Your task to perform on an android device: find which apps use the phone's location Image 0: 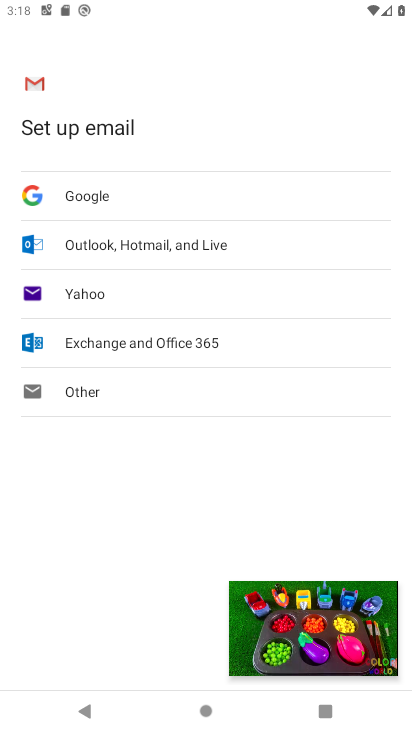
Step 0: click (330, 626)
Your task to perform on an android device: find which apps use the phone's location Image 1: 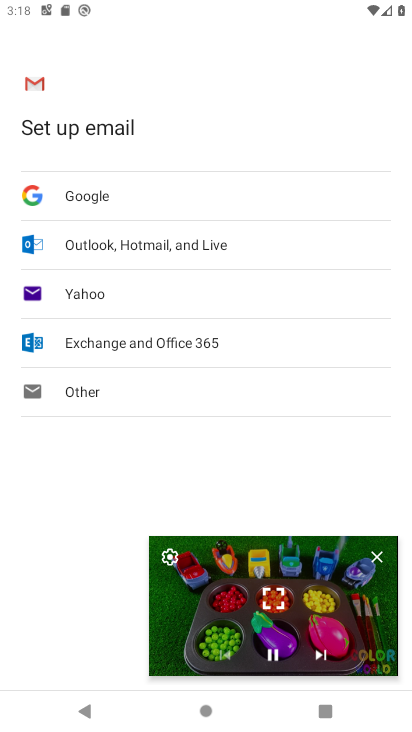
Step 1: click (367, 561)
Your task to perform on an android device: find which apps use the phone's location Image 2: 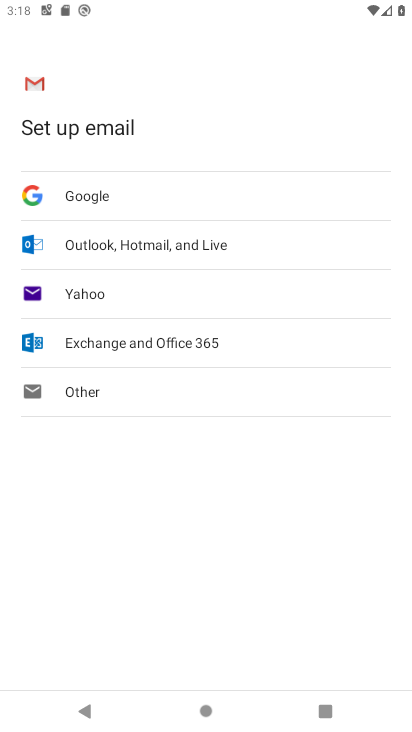
Step 2: drag from (208, 645) to (301, 255)
Your task to perform on an android device: find which apps use the phone's location Image 3: 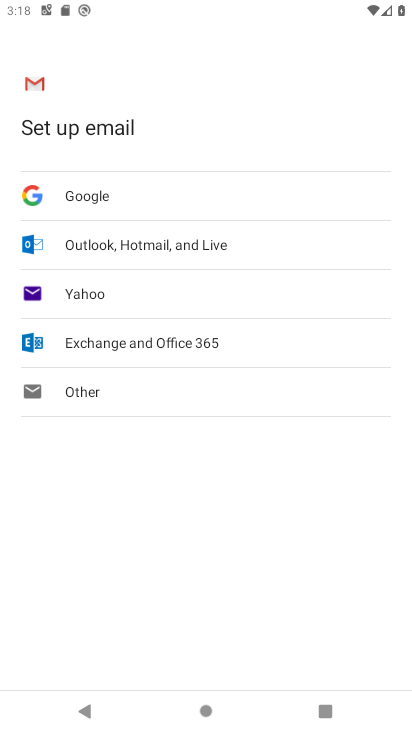
Step 3: drag from (150, 499) to (278, 147)
Your task to perform on an android device: find which apps use the phone's location Image 4: 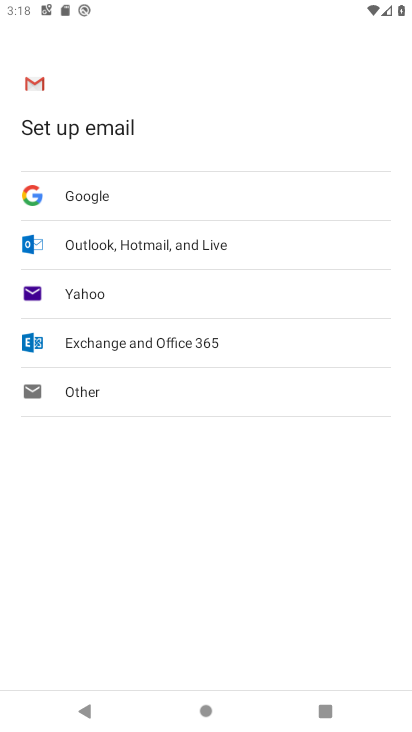
Step 4: drag from (274, 536) to (297, 334)
Your task to perform on an android device: find which apps use the phone's location Image 5: 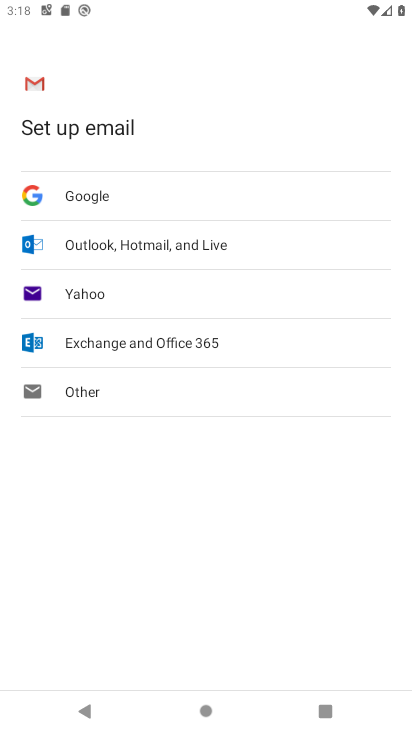
Step 5: click (282, 74)
Your task to perform on an android device: find which apps use the phone's location Image 6: 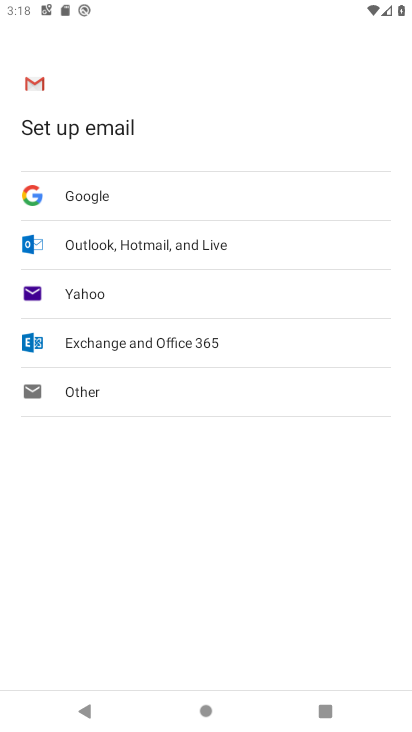
Step 6: drag from (229, 533) to (386, 78)
Your task to perform on an android device: find which apps use the phone's location Image 7: 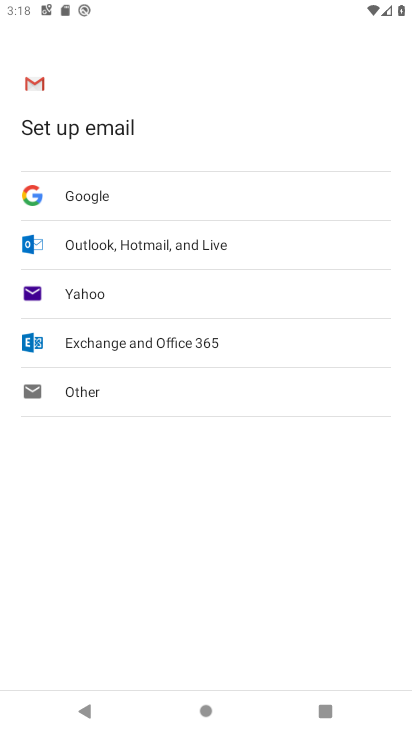
Step 7: press home button
Your task to perform on an android device: find which apps use the phone's location Image 8: 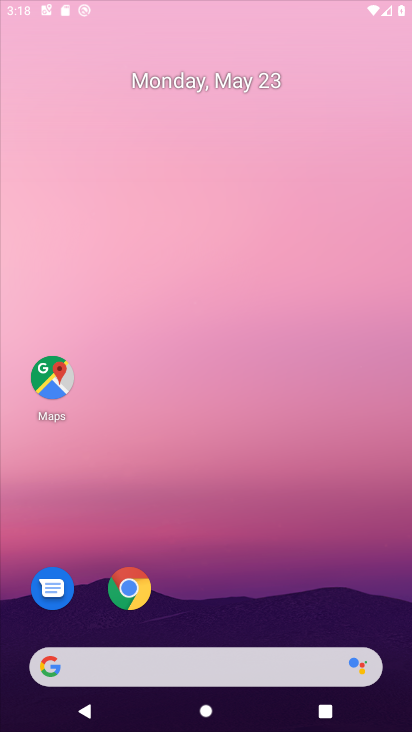
Step 8: drag from (271, 534) to (360, 14)
Your task to perform on an android device: find which apps use the phone's location Image 9: 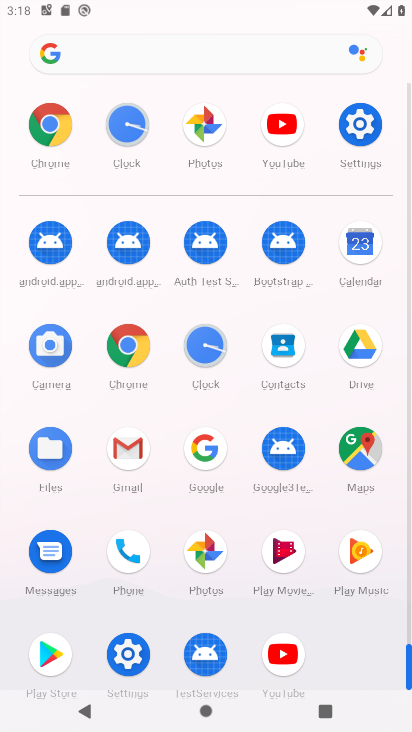
Step 9: click (368, 107)
Your task to perform on an android device: find which apps use the phone's location Image 10: 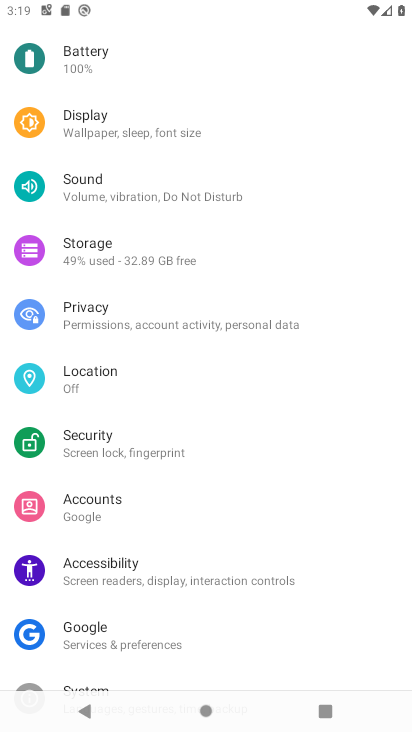
Step 10: drag from (169, 170) to (229, 662)
Your task to perform on an android device: find which apps use the phone's location Image 11: 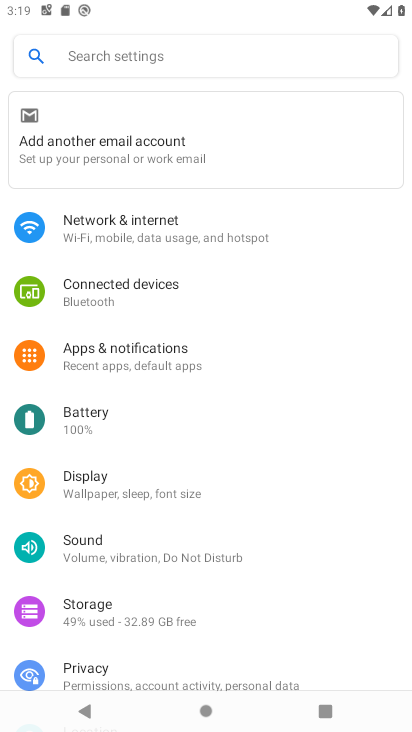
Step 11: drag from (200, 540) to (316, 143)
Your task to perform on an android device: find which apps use the phone's location Image 12: 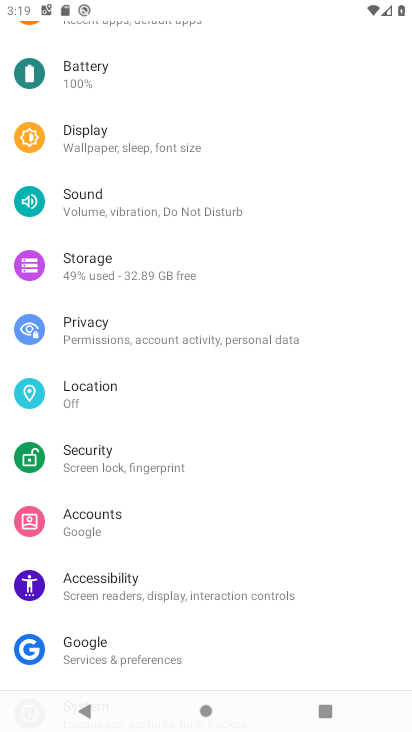
Step 12: drag from (201, 116) to (206, 495)
Your task to perform on an android device: find which apps use the phone's location Image 13: 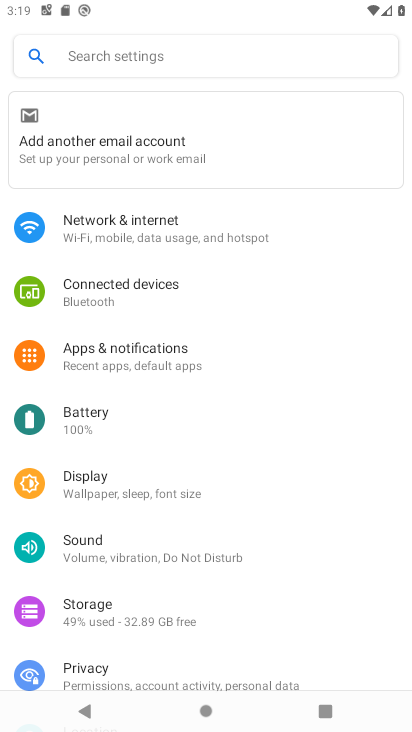
Step 13: drag from (179, 542) to (209, 257)
Your task to perform on an android device: find which apps use the phone's location Image 14: 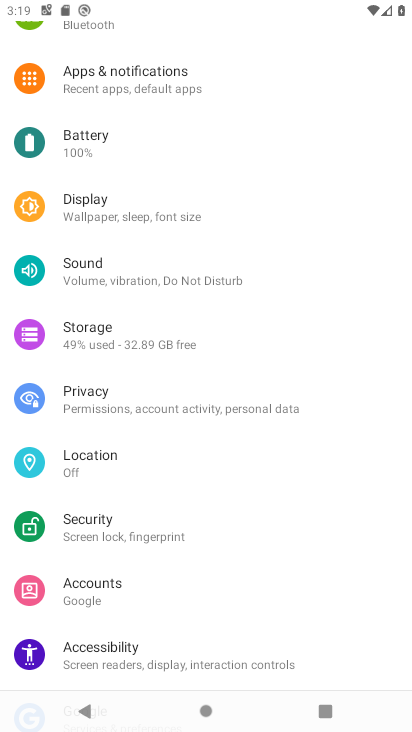
Step 14: click (93, 457)
Your task to perform on an android device: find which apps use the phone's location Image 15: 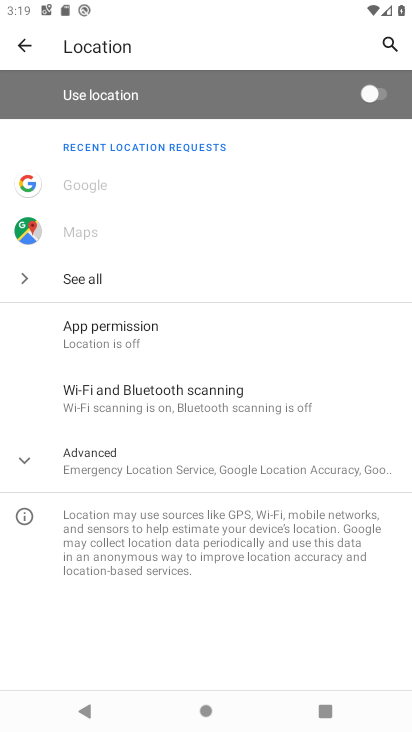
Step 15: drag from (191, 477) to (266, 291)
Your task to perform on an android device: find which apps use the phone's location Image 16: 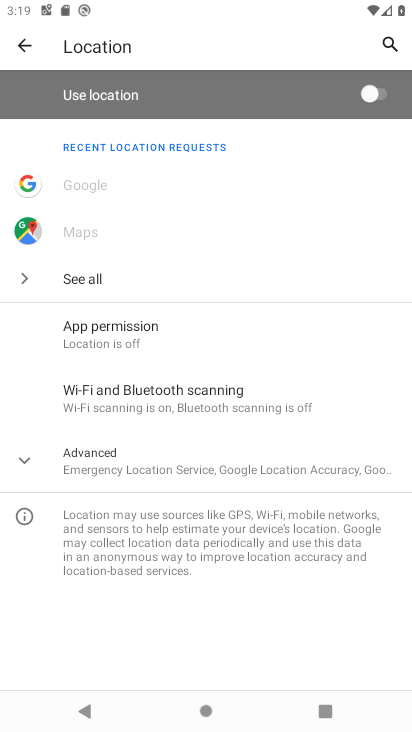
Step 16: click (153, 348)
Your task to perform on an android device: find which apps use the phone's location Image 17: 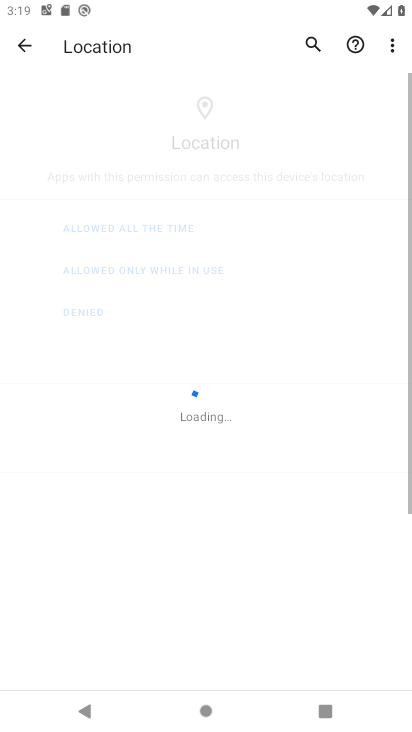
Step 17: task complete